Your task to perform on an android device: open app "VLC for Android" Image 0: 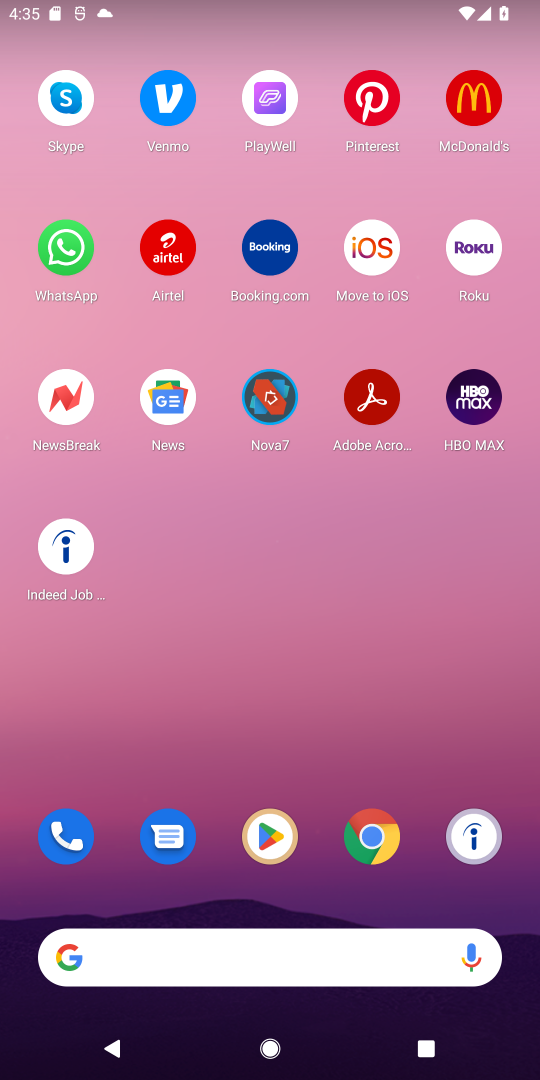
Step 0: click (274, 836)
Your task to perform on an android device: open app "VLC for Android" Image 1: 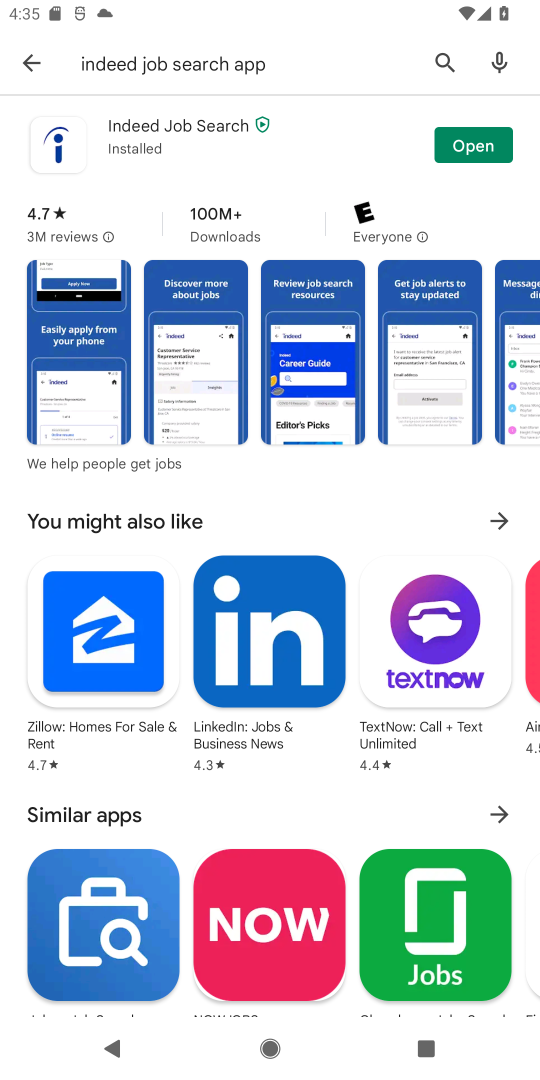
Step 1: click (440, 57)
Your task to perform on an android device: open app "VLC for Android" Image 2: 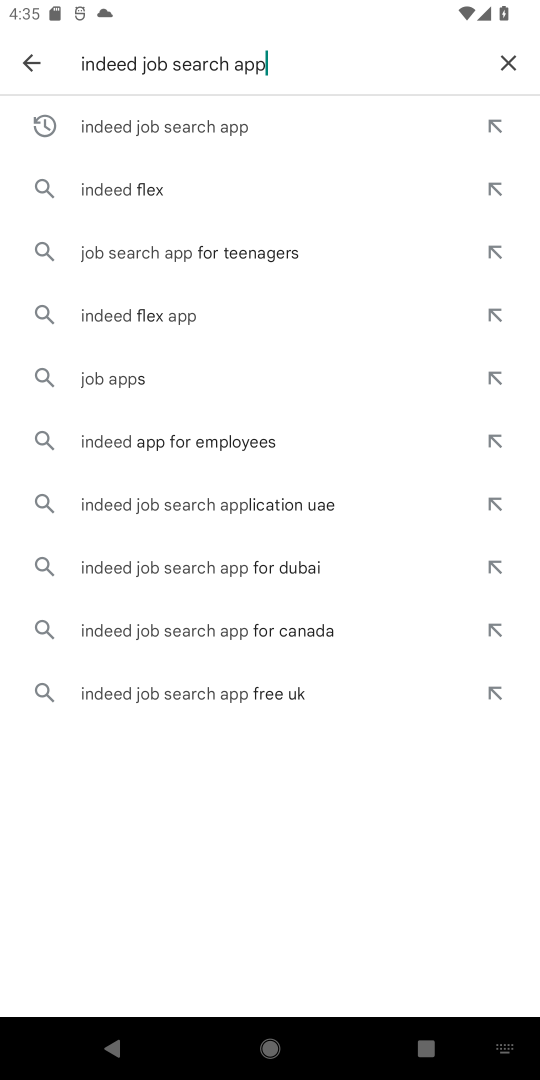
Step 2: click (512, 56)
Your task to perform on an android device: open app "VLC for Android" Image 3: 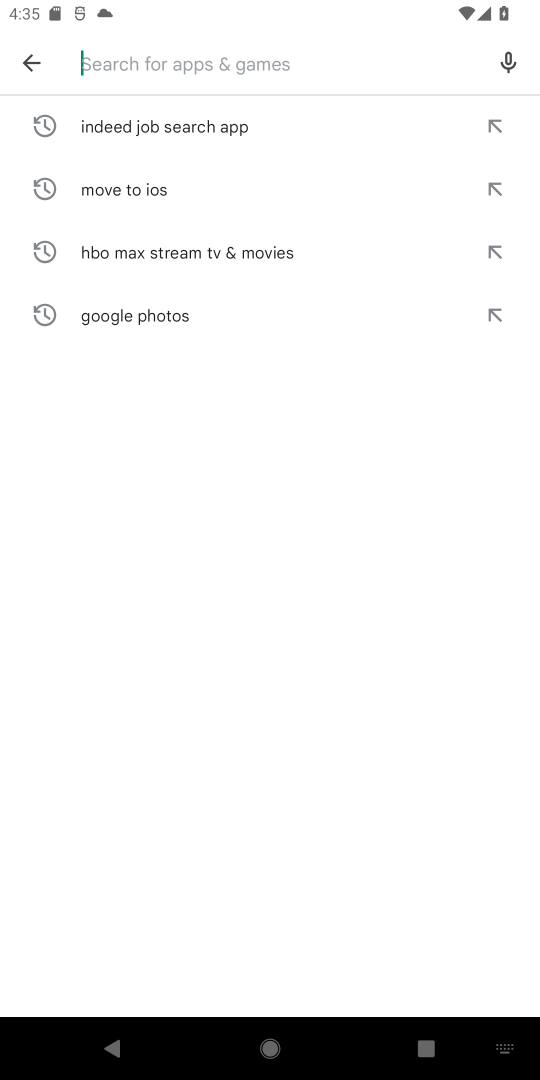
Step 3: type "VLC for Android"
Your task to perform on an android device: open app "VLC for Android" Image 4: 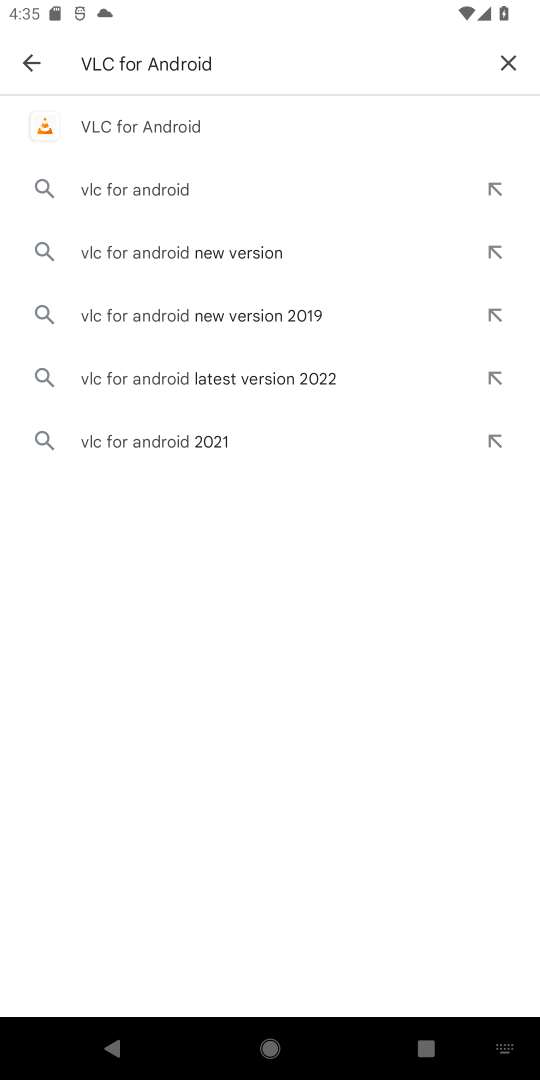
Step 4: click (124, 120)
Your task to perform on an android device: open app "VLC for Android" Image 5: 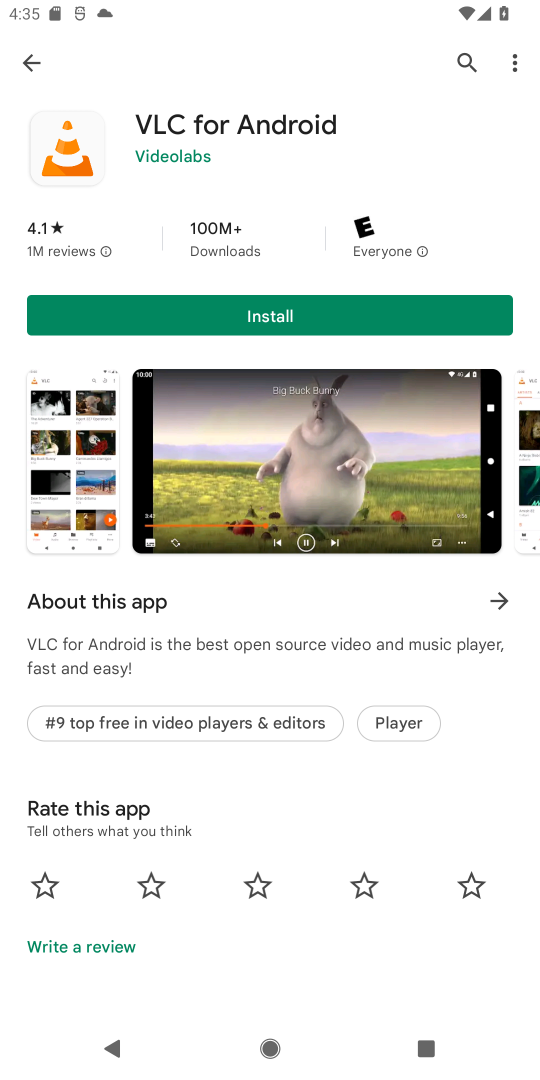
Step 5: task complete